Your task to perform on an android device: Open the calendar and show me this week's events? Image 0: 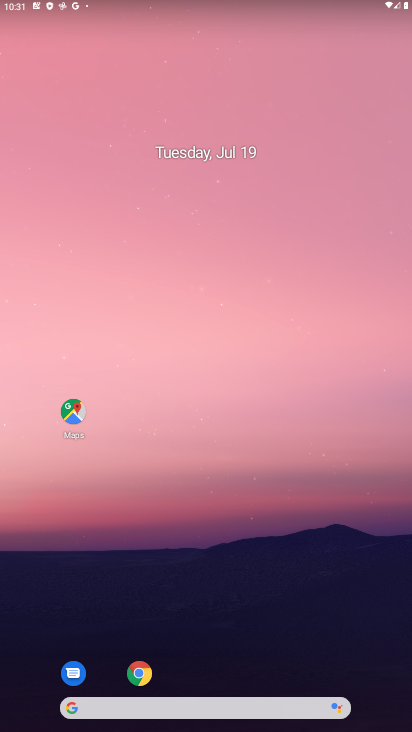
Step 0: drag from (209, 669) to (286, 70)
Your task to perform on an android device: Open the calendar and show me this week's events? Image 1: 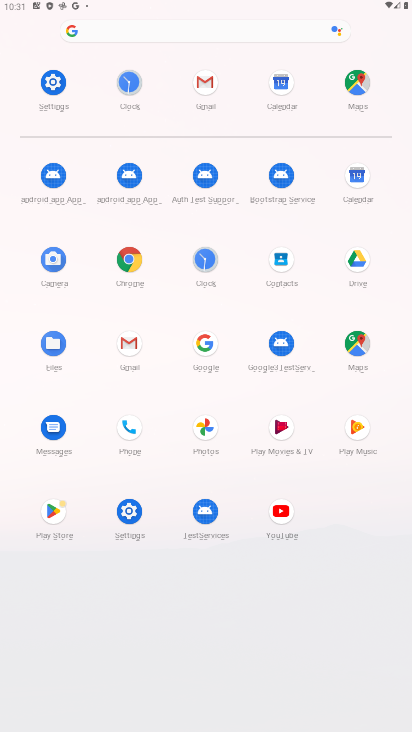
Step 1: click (293, 109)
Your task to perform on an android device: Open the calendar and show me this week's events? Image 2: 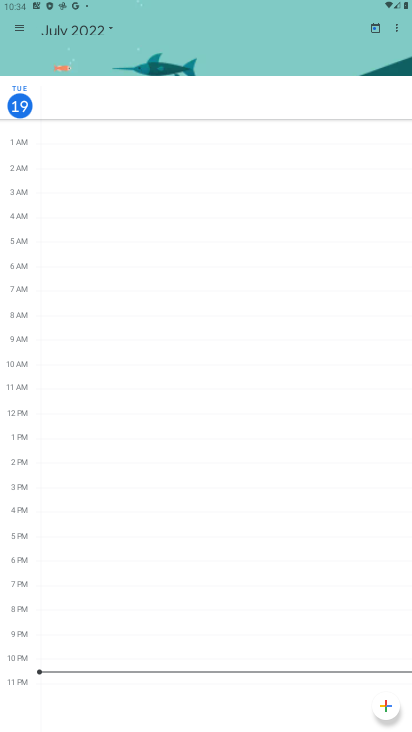
Step 2: press home button
Your task to perform on an android device: Open the calendar and show me this week's events? Image 3: 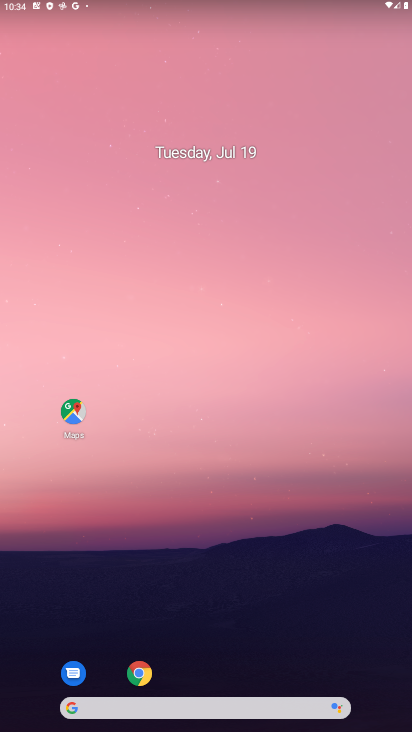
Step 3: drag from (243, 666) to (252, 55)
Your task to perform on an android device: Open the calendar and show me this week's events? Image 4: 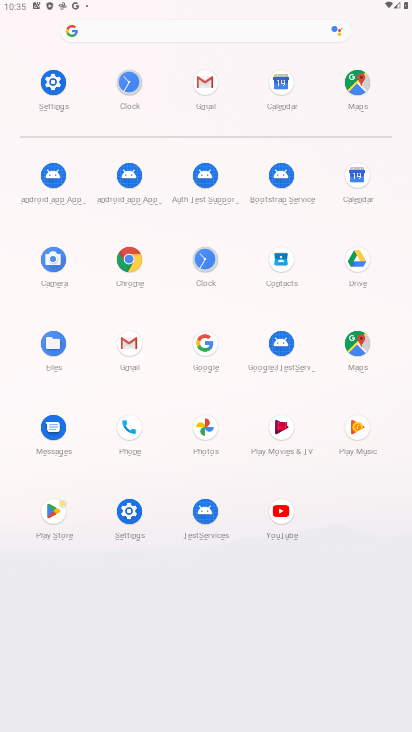
Step 4: click (358, 192)
Your task to perform on an android device: Open the calendar and show me this week's events? Image 5: 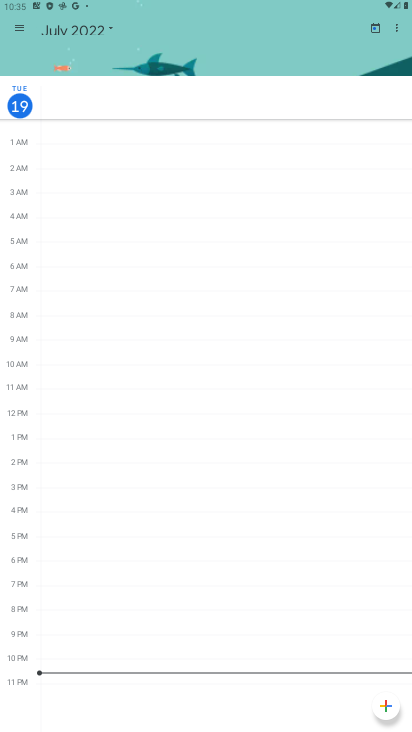
Step 5: task complete